Your task to perform on an android device: Go to Amazon Image 0: 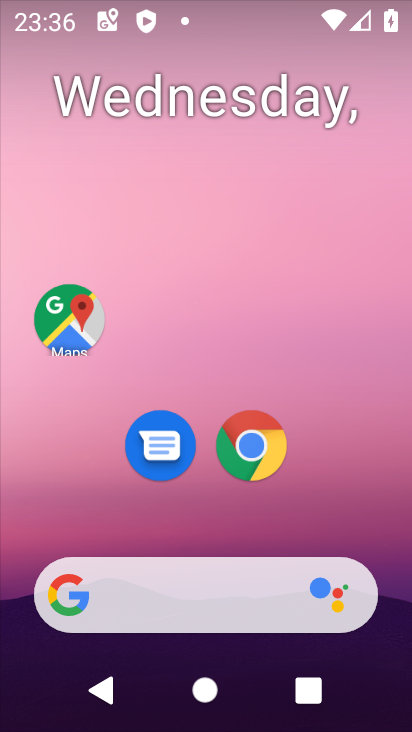
Step 0: drag from (315, 525) to (324, 246)
Your task to perform on an android device: Go to Amazon Image 1: 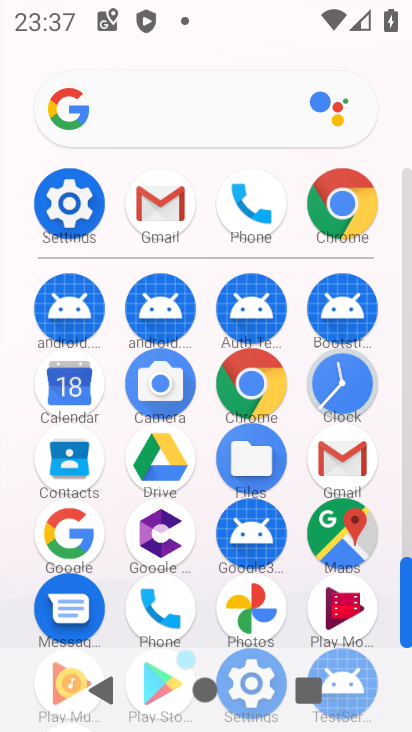
Step 1: click (363, 225)
Your task to perform on an android device: Go to Amazon Image 2: 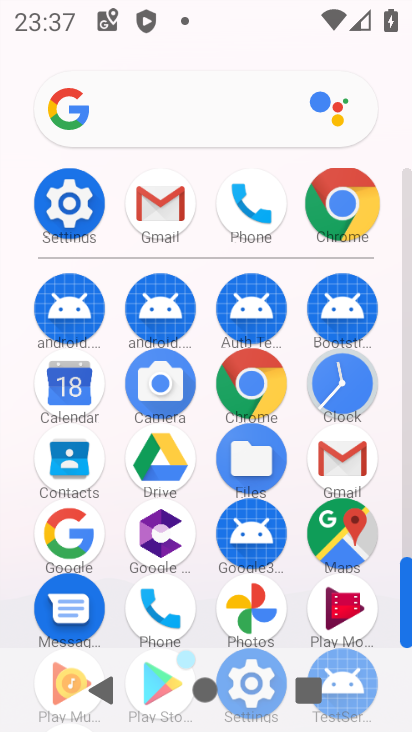
Step 2: click (345, 207)
Your task to perform on an android device: Go to Amazon Image 3: 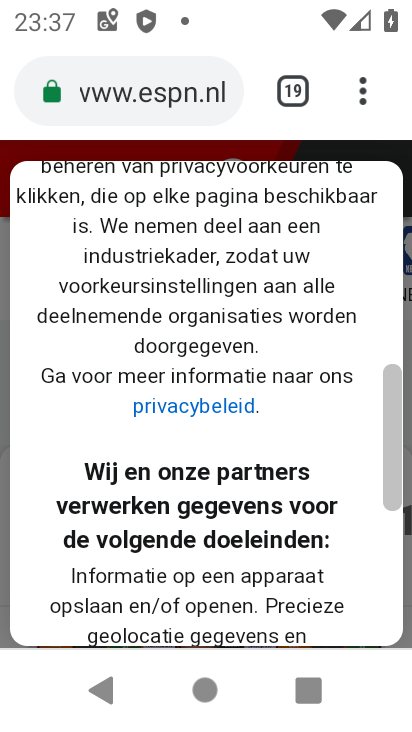
Step 3: click (349, 86)
Your task to perform on an android device: Go to Amazon Image 4: 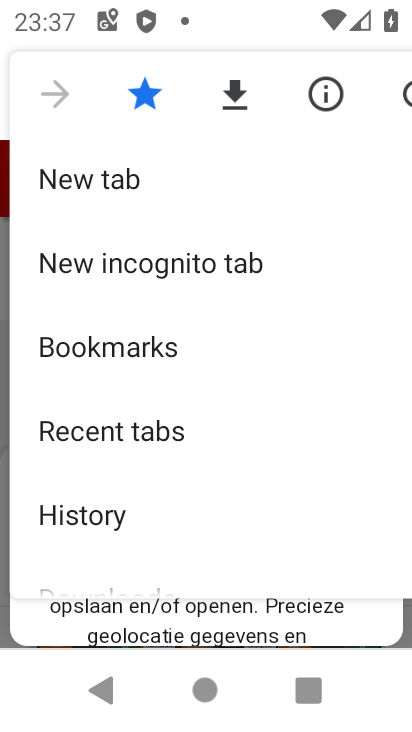
Step 4: drag from (162, 499) to (182, 409)
Your task to perform on an android device: Go to Amazon Image 5: 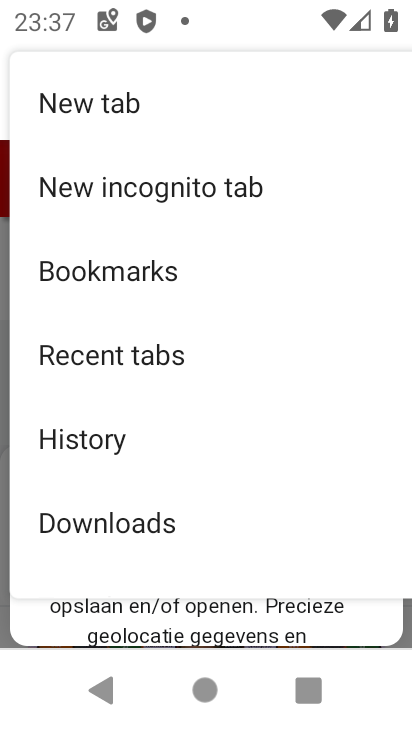
Step 5: click (145, 107)
Your task to perform on an android device: Go to Amazon Image 6: 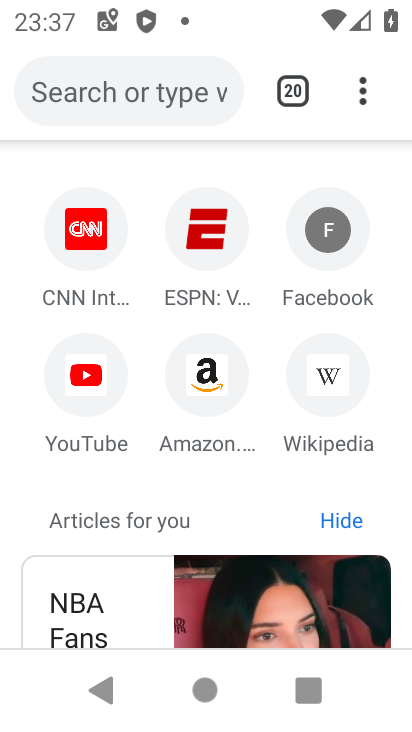
Step 6: click (217, 371)
Your task to perform on an android device: Go to Amazon Image 7: 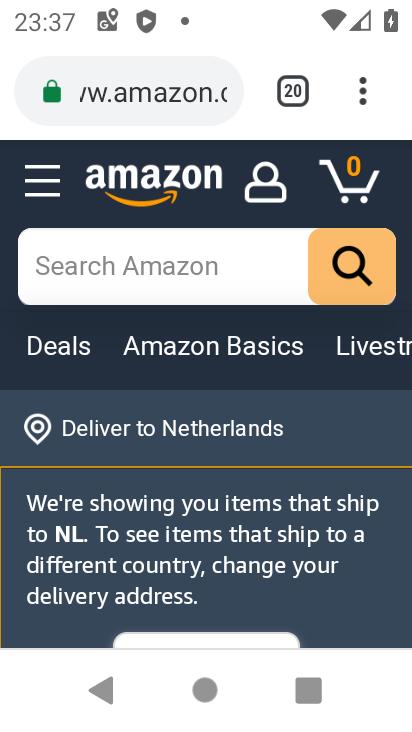
Step 7: task complete